Your task to perform on an android device: refresh tabs in the chrome app Image 0: 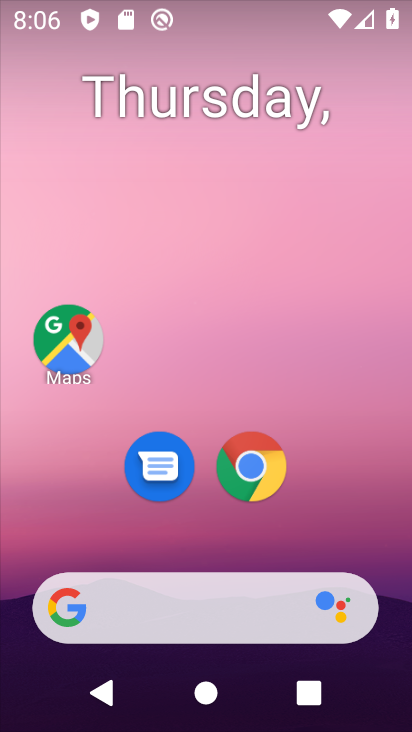
Step 0: click (243, 459)
Your task to perform on an android device: refresh tabs in the chrome app Image 1: 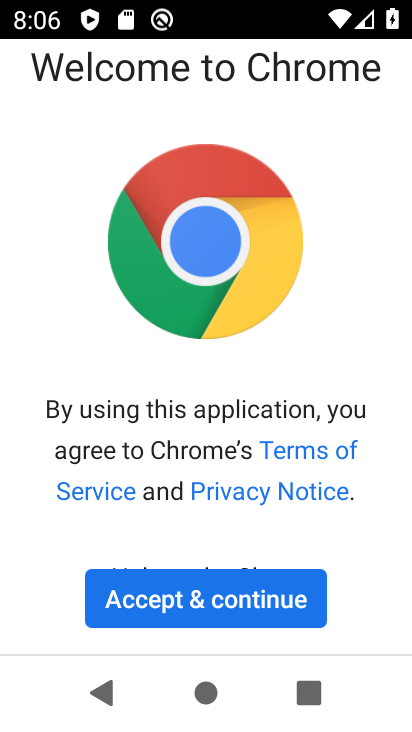
Step 1: click (242, 593)
Your task to perform on an android device: refresh tabs in the chrome app Image 2: 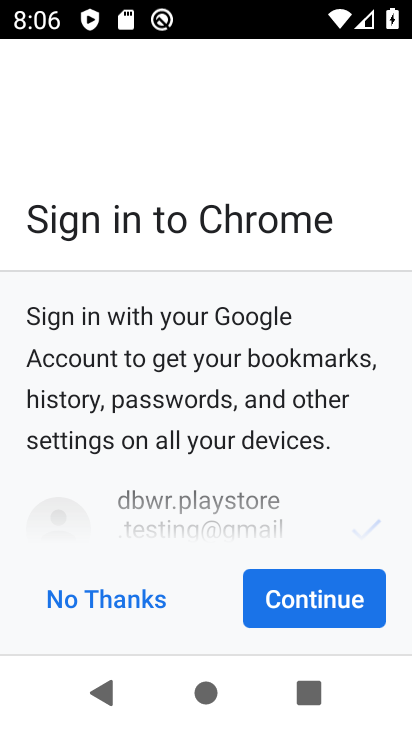
Step 2: click (288, 599)
Your task to perform on an android device: refresh tabs in the chrome app Image 3: 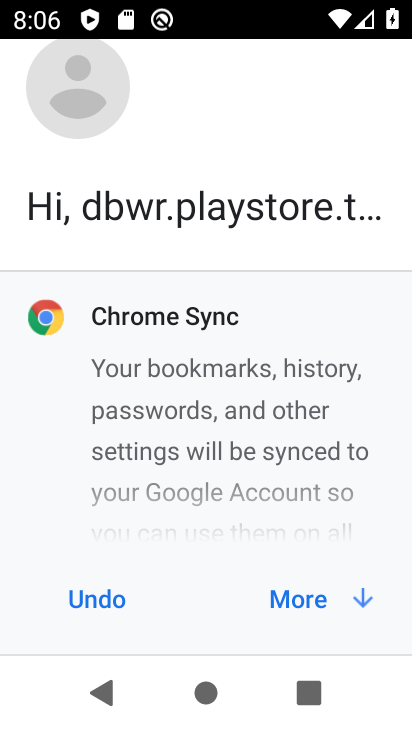
Step 3: click (363, 597)
Your task to perform on an android device: refresh tabs in the chrome app Image 4: 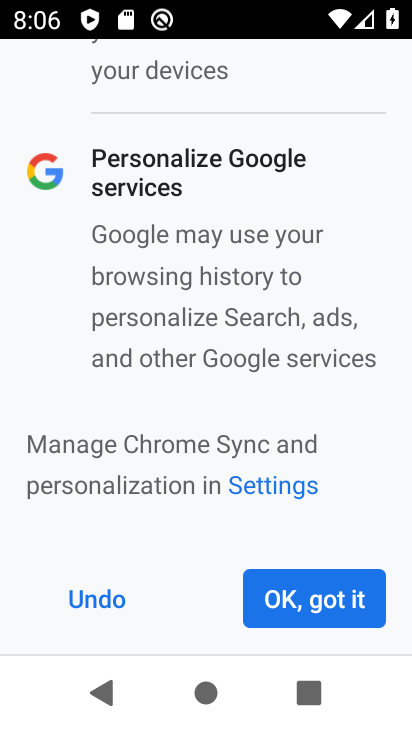
Step 4: click (363, 597)
Your task to perform on an android device: refresh tabs in the chrome app Image 5: 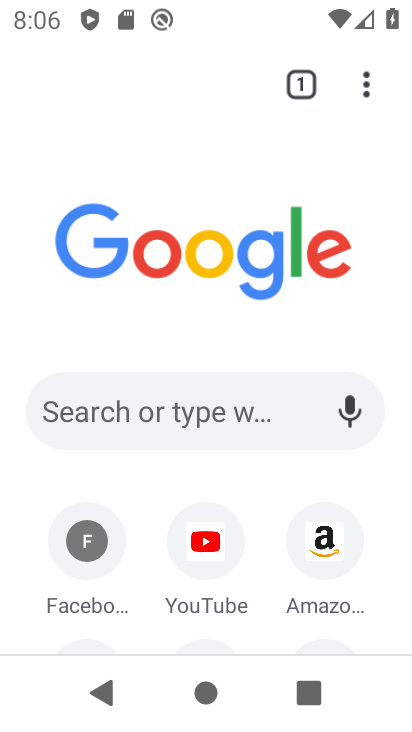
Step 5: click (360, 85)
Your task to perform on an android device: refresh tabs in the chrome app Image 6: 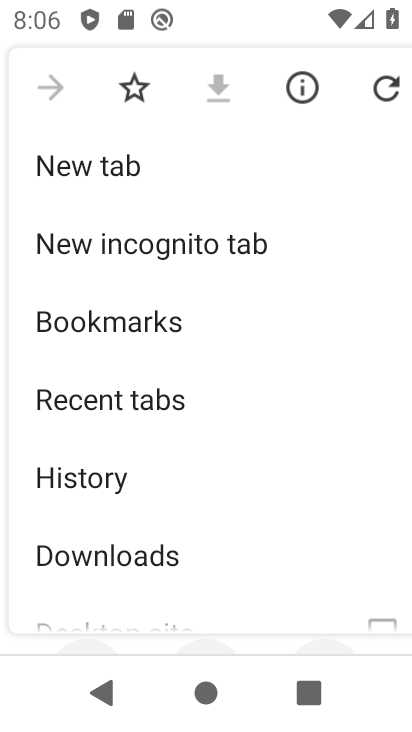
Step 6: click (383, 87)
Your task to perform on an android device: refresh tabs in the chrome app Image 7: 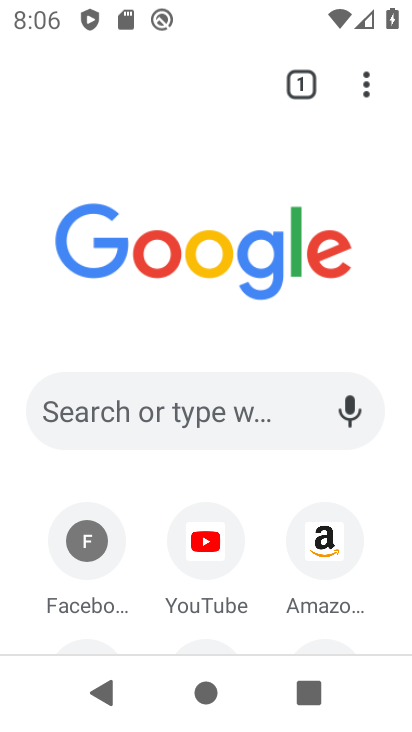
Step 7: task complete